Your task to perform on an android device: Open ESPN.com Image 0: 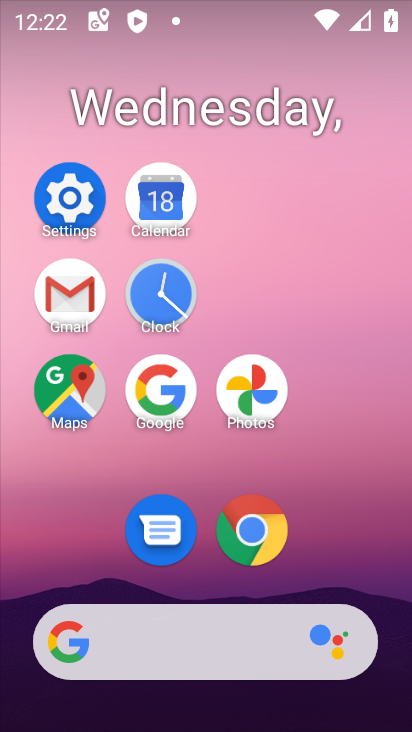
Step 0: click (240, 532)
Your task to perform on an android device: Open ESPN.com Image 1: 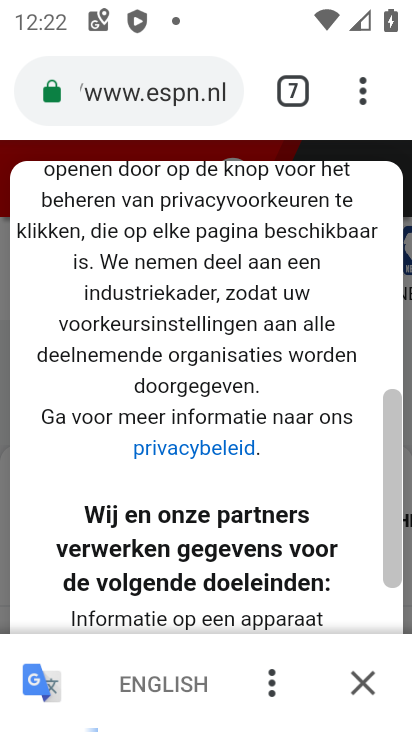
Step 1: task complete